Your task to perform on an android device: change timer sound Image 0: 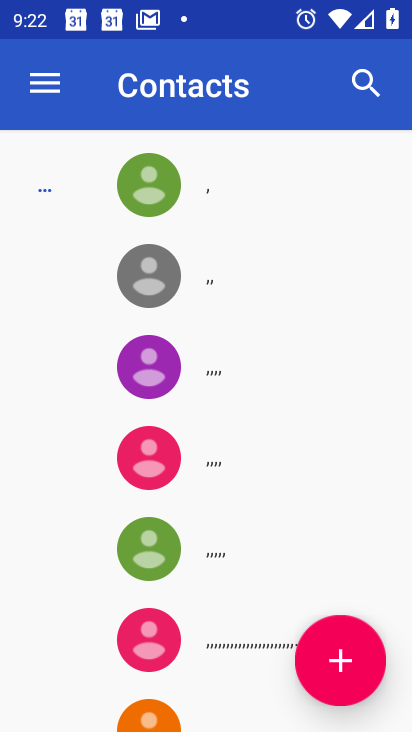
Step 0: press home button
Your task to perform on an android device: change timer sound Image 1: 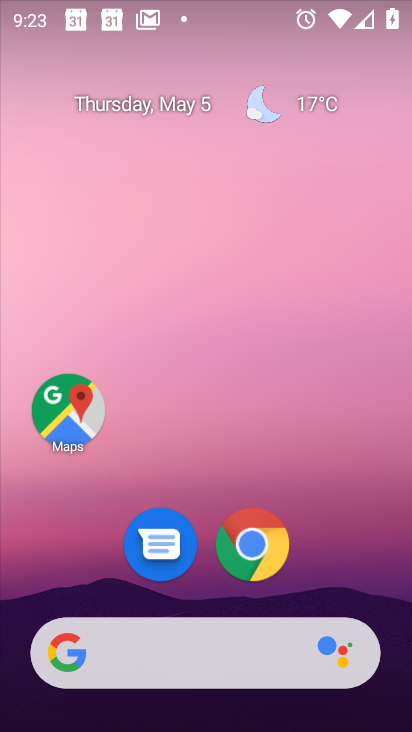
Step 1: drag from (367, 514) to (352, 9)
Your task to perform on an android device: change timer sound Image 2: 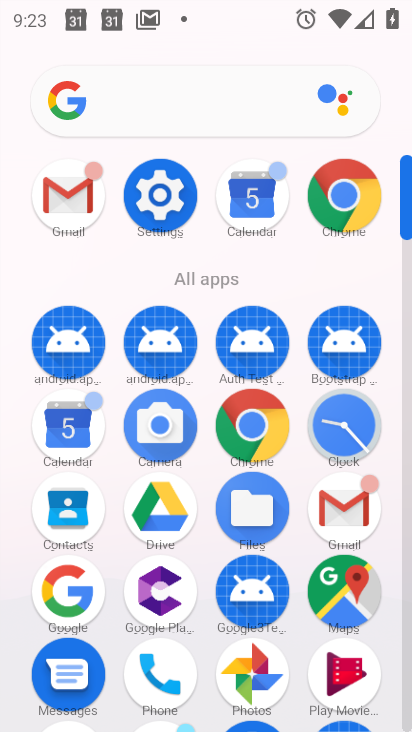
Step 2: click (145, 207)
Your task to perform on an android device: change timer sound Image 3: 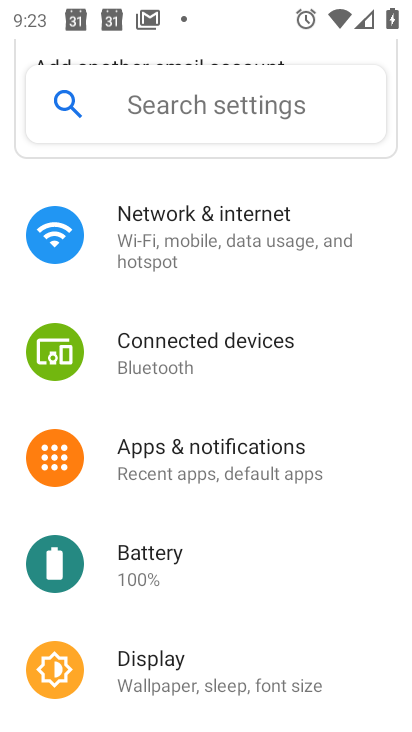
Step 3: drag from (149, 570) to (227, 211)
Your task to perform on an android device: change timer sound Image 4: 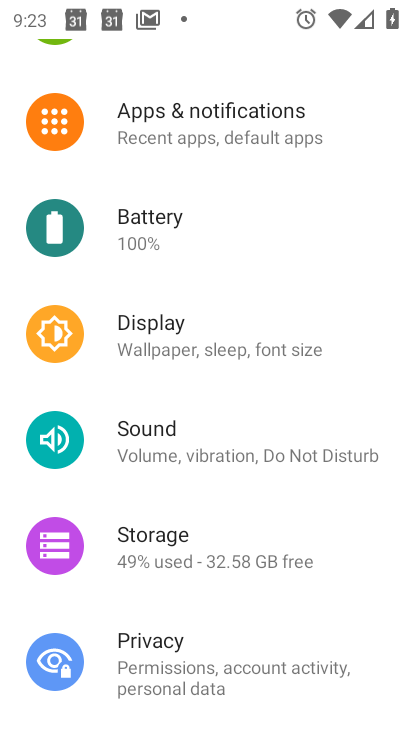
Step 4: click (194, 426)
Your task to perform on an android device: change timer sound Image 5: 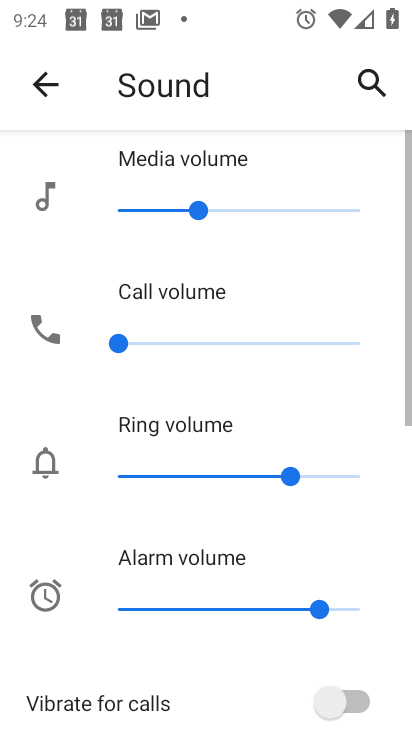
Step 5: drag from (171, 538) to (264, 112)
Your task to perform on an android device: change timer sound Image 6: 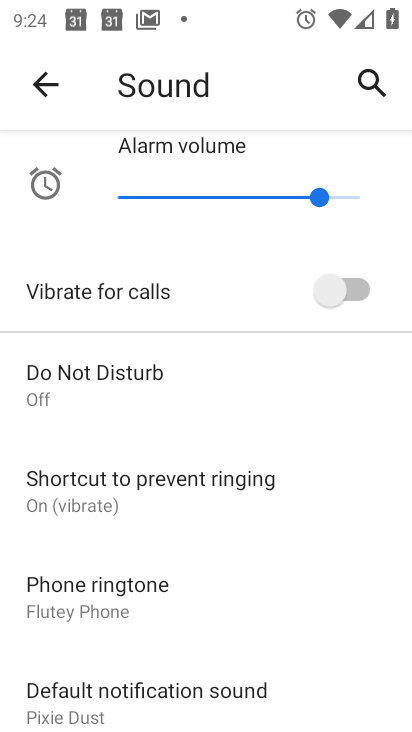
Step 6: drag from (150, 564) to (204, 324)
Your task to perform on an android device: change timer sound Image 7: 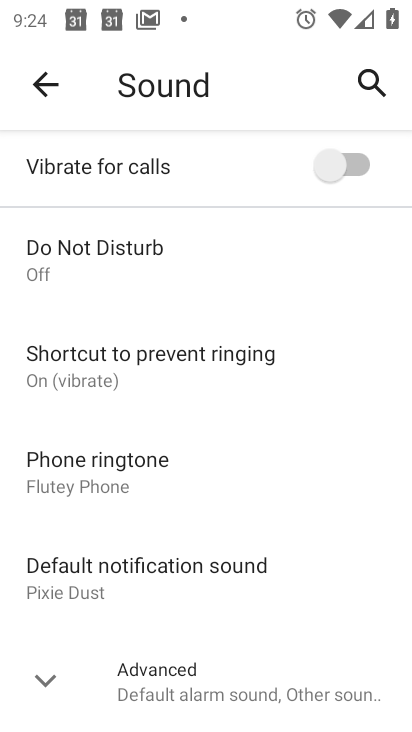
Step 7: click (161, 665)
Your task to perform on an android device: change timer sound Image 8: 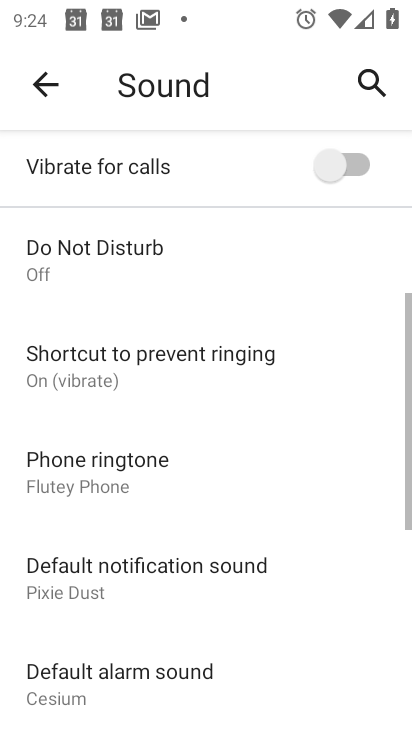
Step 8: task complete